Your task to perform on an android device: Search for vegetarian restaurants on Maps Image 0: 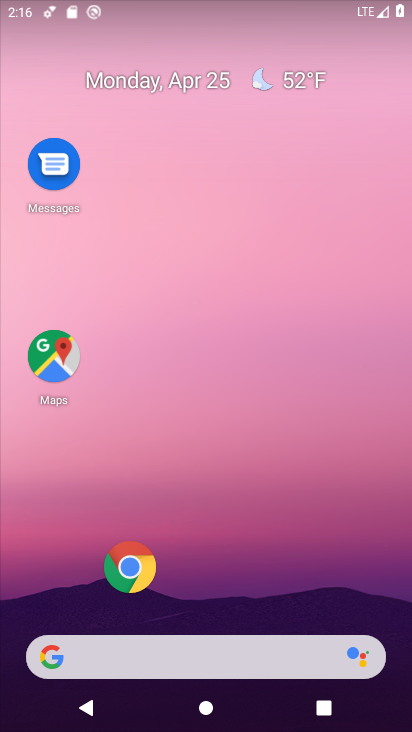
Step 0: drag from (246, 637) to (269, 157)
Your task to perform on an android device: Search for vegetarian restaurants on Maps Image 1: 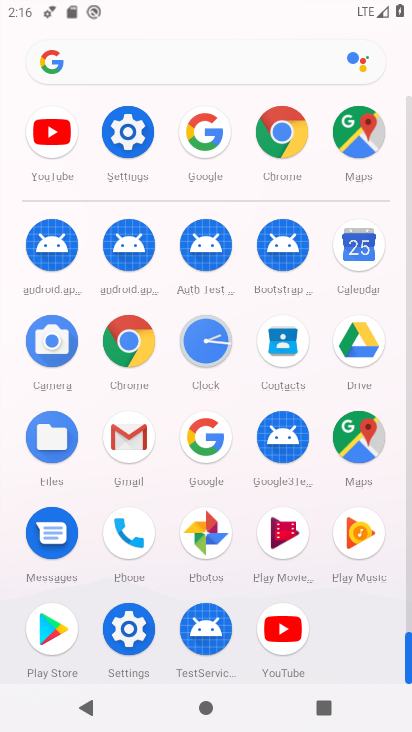
Step 1: click (348, 437)
Your task to perform on an android device: Search for vegetarian restaurants on Maps Image 2: 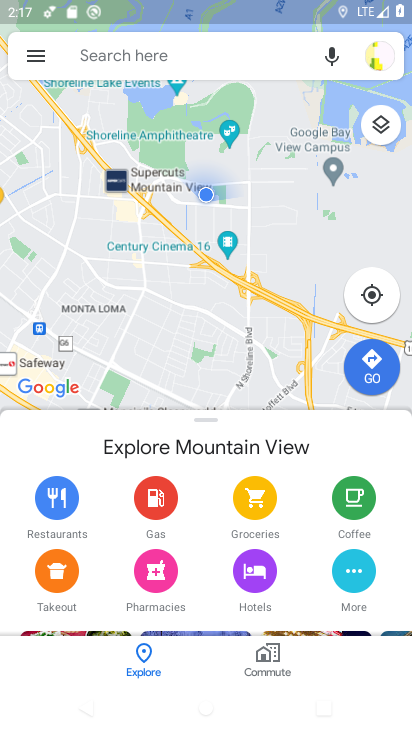
Step 2: click (211, 66)
Your task to perform on an android device: Search for vegetarian restaurants on Maps Image 3: 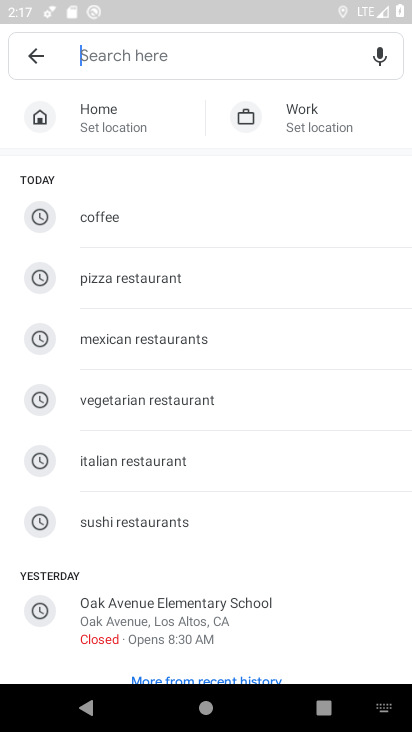
Step 3: click (211, 66)
Your task to perform on an android device: Search for vegetarian restaurants on Maps Image 4: 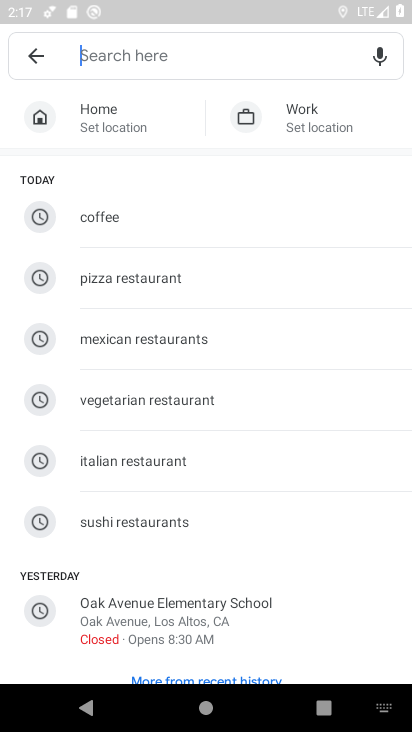
Step 4: click (193, 415)
Your task to perform on an android device: Search for vegetarian restaurants on Maps Image 5: 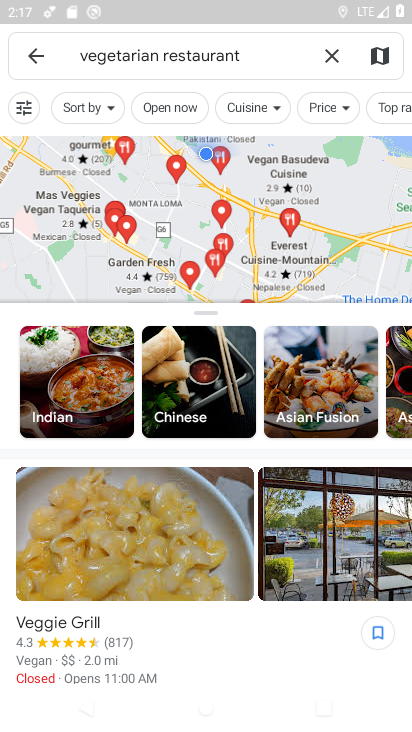
Step 5: task complete